Your task to perform on an android device: When is my next appointment? Image 0: 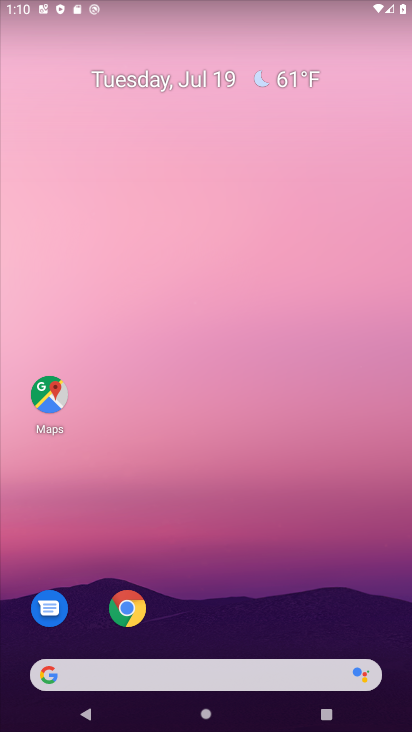
Step 0: drag from (213, 607) to (207, 44)
Your task to perform on an android device: When is my next appointment? Image 1: 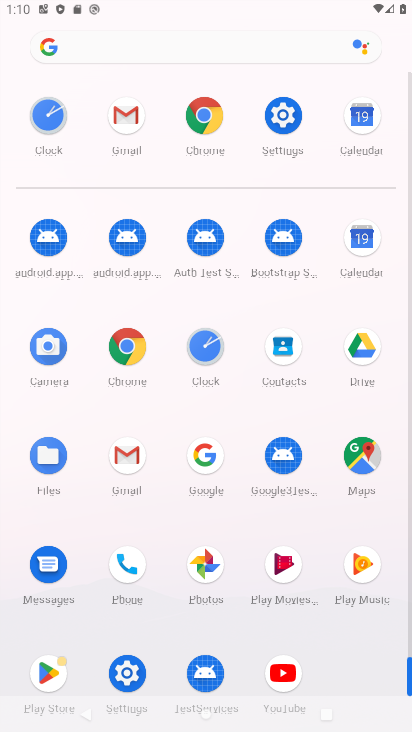
Step 1: click (354, 244)
Your task to perform on an android device: When is my next appointment? Image 2: 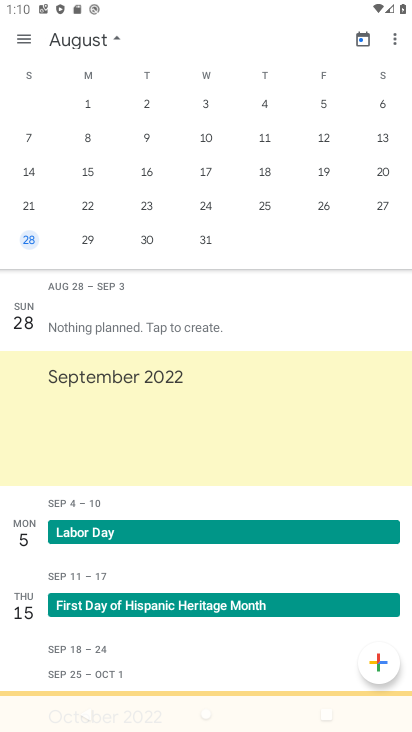
Step 2: task complete